Your task to perform on an android device: toggle airplane mode Image 0: 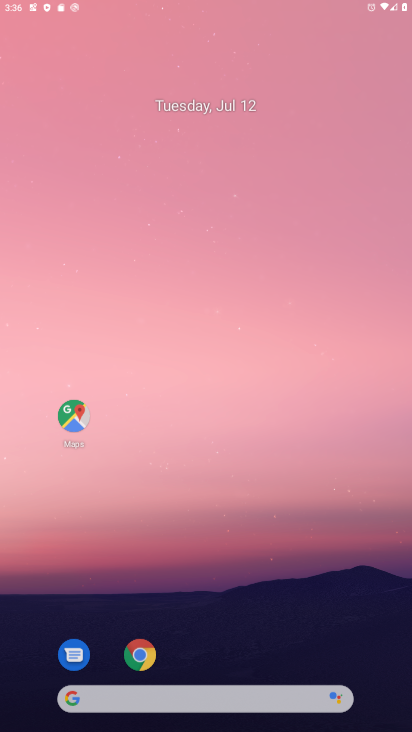
Step 0: drag from (245, 506) to (74, 597)
Your task to perform on an android device: toggle airplane mode Image 1: 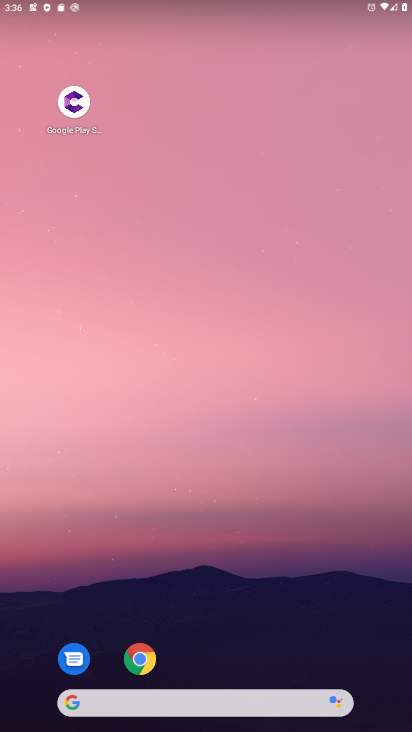
Step 1: drag from (165, 540) to (157, 182)
Your task to perform on an android device: toggle airplane mode Image 2: 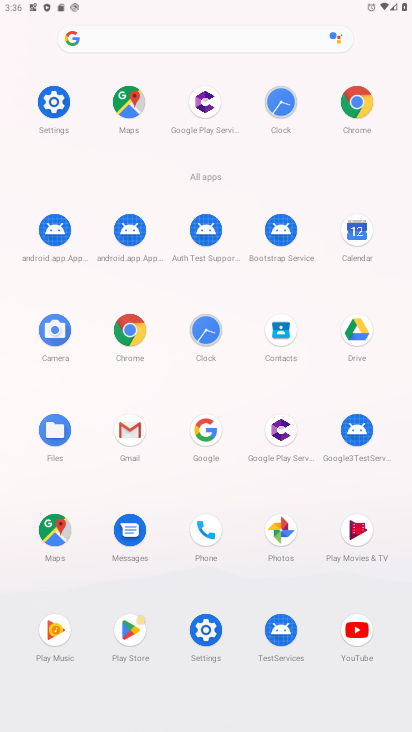
Step 2: click (52, 100)
Your task to perform on an android device: toggle airplane mode Image 3: 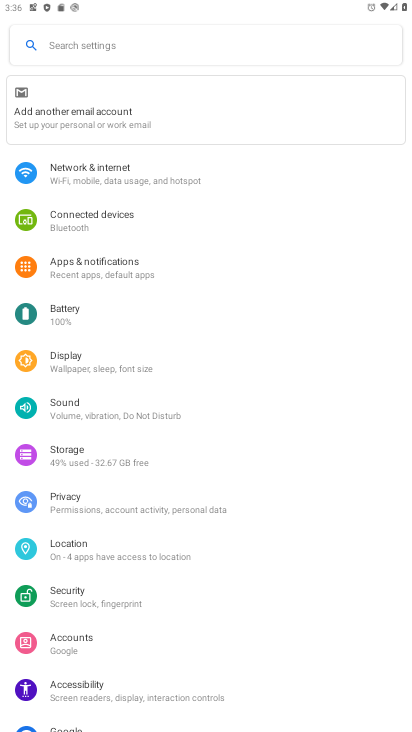
Step 3: click (87, 179)
Your task to perform on an android device: toggle airplane mode Image 4: 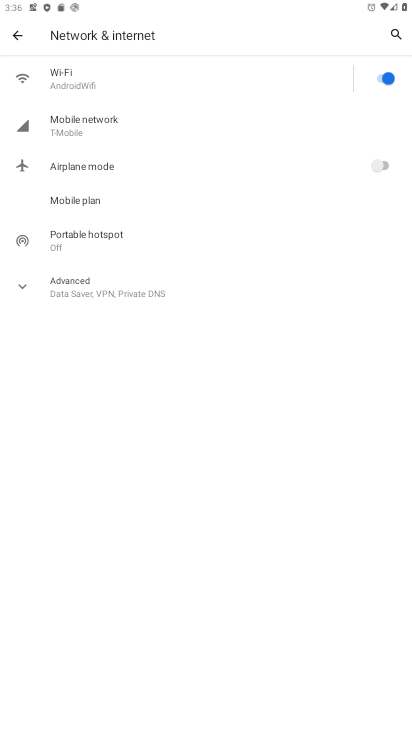
Step 4: click (385, 162)
Your task to perform on an android device: toggle airplane mode Image 5: 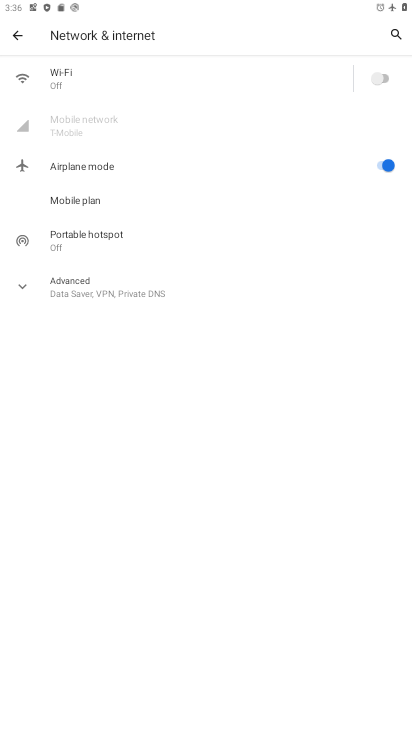
Step 5: task complete